Your task to perform on an android device: Open the calendar app, open the side menu, and click the "Day" option Image 0: 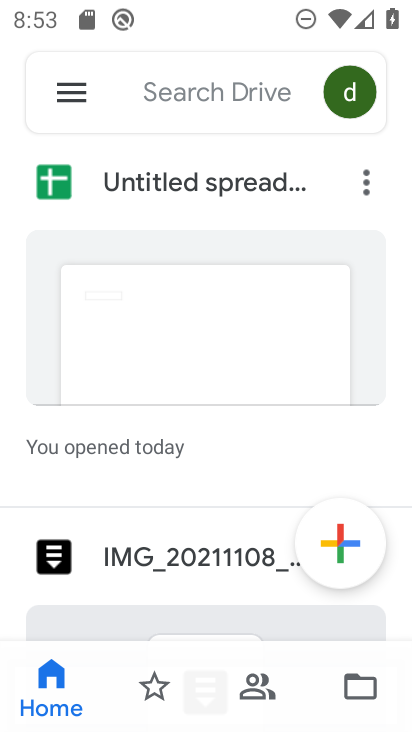
Step 0: press home button
Your task to perform on an android device: Open the calendar app, open the side menu, and click the "Day" option Image 1: 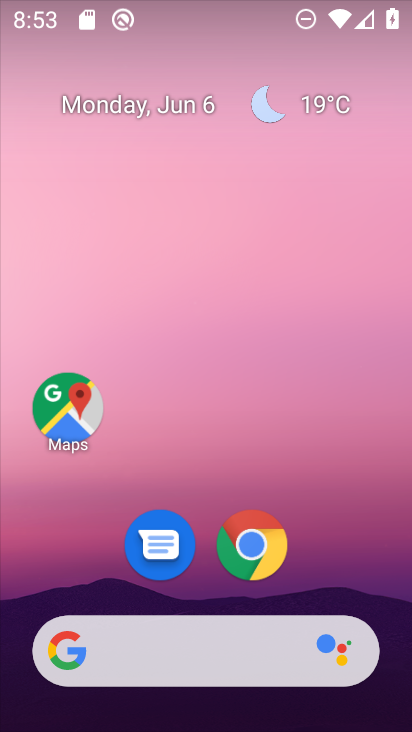
Step 1: drag from (167, 602) to (207, 8)
Your task to perform on an android device: Open the calendar app, open the side menu, and click the "Day" option Image 2: 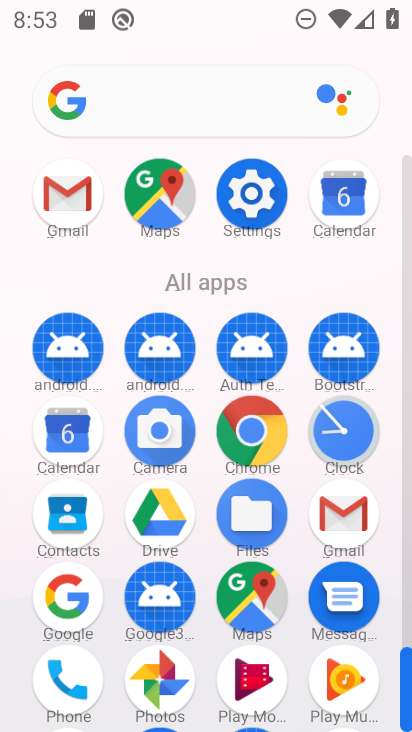
Step 2: click (73, 437)
Your task to perform on an android device: Open the calendar app, open the side menu, and click the "Day" option Image 3: 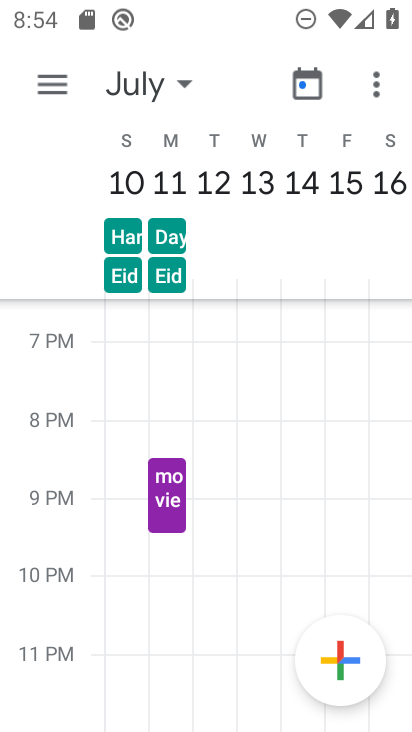
Step 3: click (140, 86)
Your task to perform on an android device: Open the calendar app, open the side menu, and click the "Day" option Image 4: 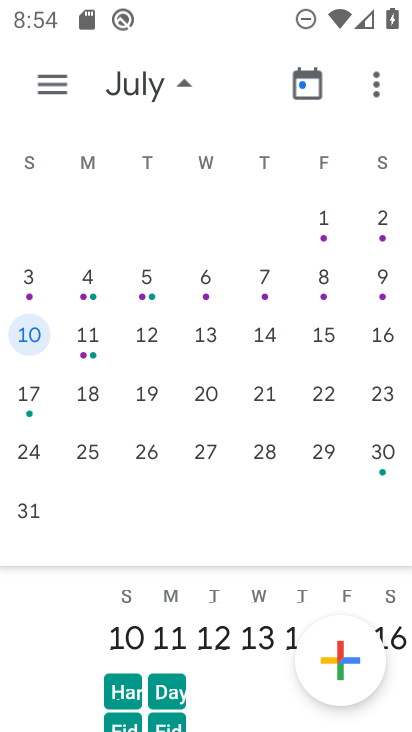
Step 4: drag from (66, 291) to (363, 300)
Your task to perform on an android device: Open the calendar app, open the side menu, and click the "Day" option Image 5: 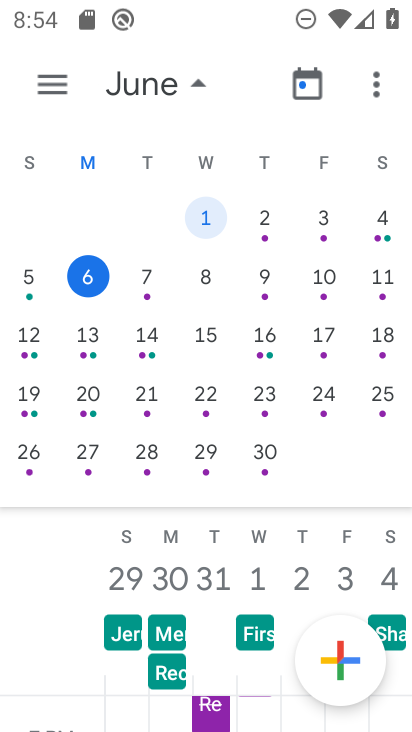
Step 5: click (79, 276)
Your task to perform on an android device: Open the calendar app, open the side menu, and click the "Day" option Image 6: 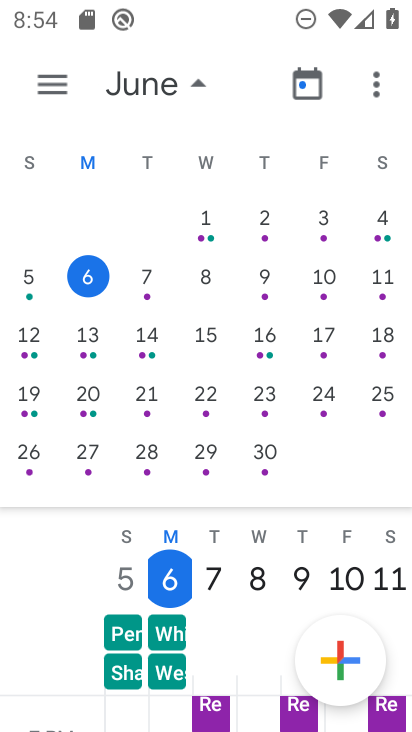
Step 6: click (57, 88)
Your task to perform on an android device: Open the calendar app, open the side menu, and click the "Day" option Image 7: 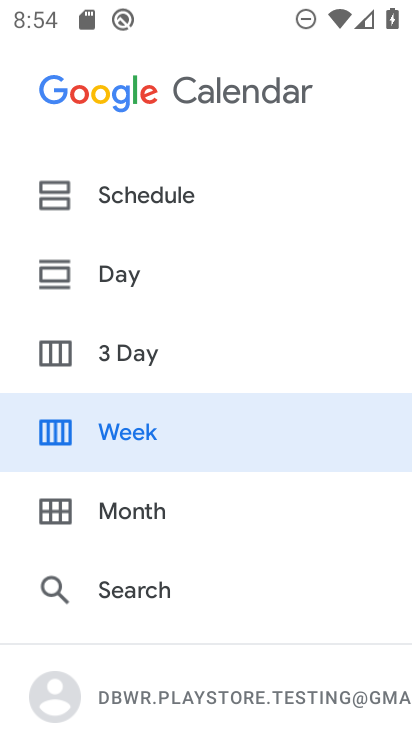
Step 7: click (130, 287)
Your task to perform on an android device: Open the calendar app, open the side menu, and click the "Day" option Image 8: 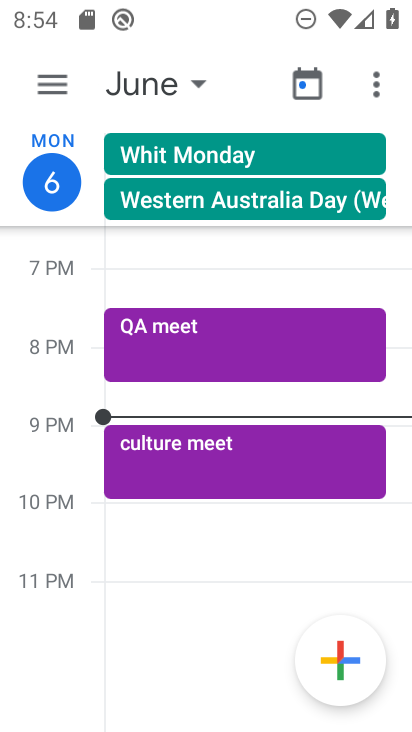
Step 8: task complete